Your task to perform on an android device: What is the news today? Image 0: 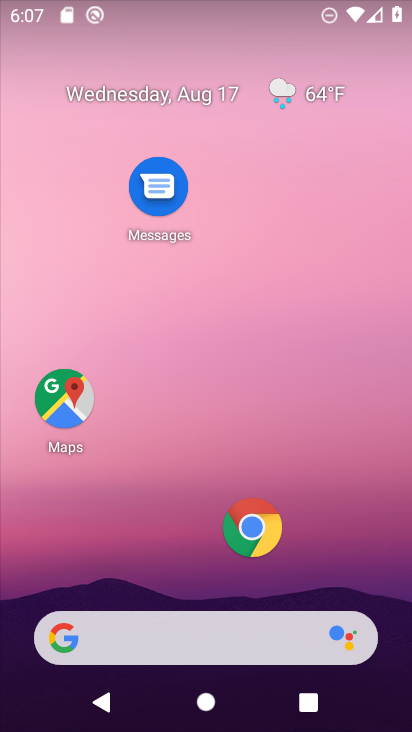
Step 0: drag from (194, 620) to (237, 215)
Your task to perform on an android device: What is the news today? Image 1: 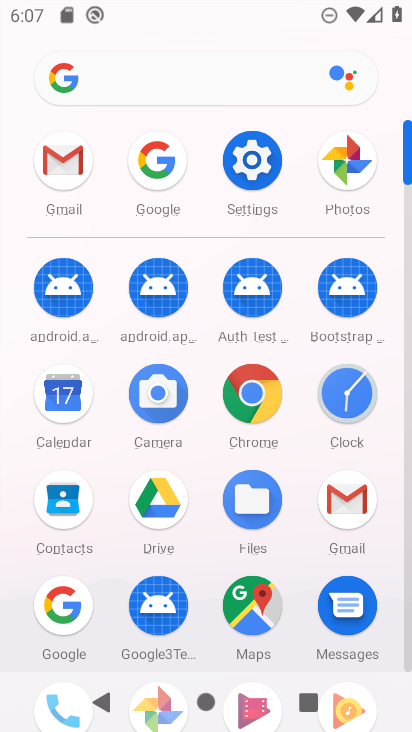
Step 1: click (78, 606)
Your task to perform on an android device: What is the news today? Image 2: 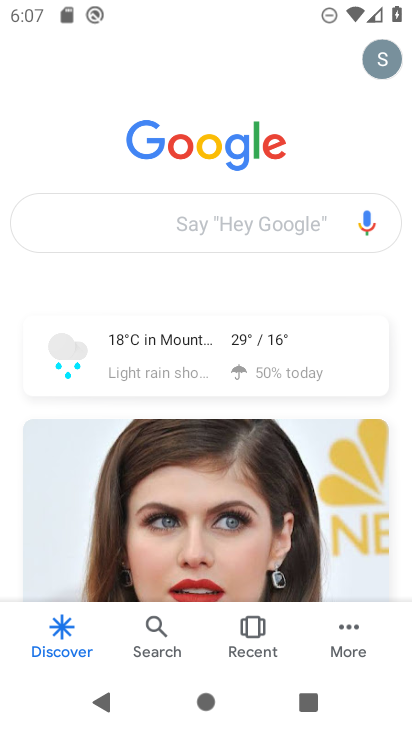
Step 2: click (130, 212)
Your task to perform on an android device: What is the news today? Image 3: 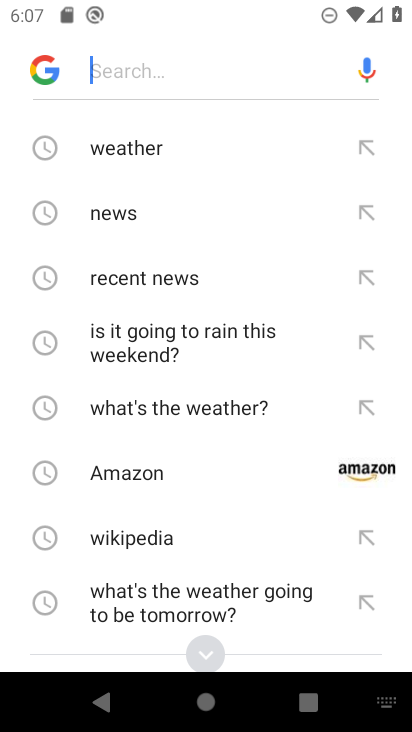
Step 3: click (109, 211)
Your task to perform on an android device: What is the news today? Image 4: 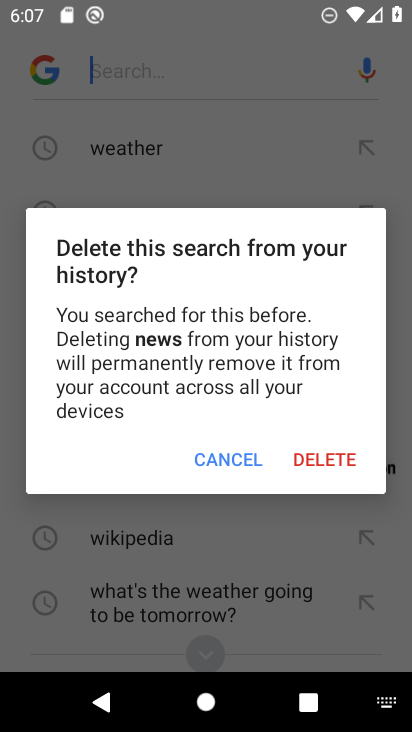
Step 4: click (250, 450)
Your task to perform on an android device: What is the news today? Image 5: 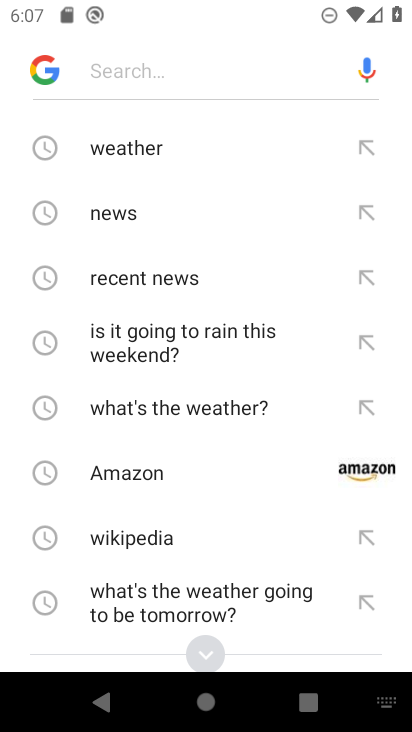
Step 5: click (115, 213)
Your task to perform on an android device: What is the news today? Image 6: 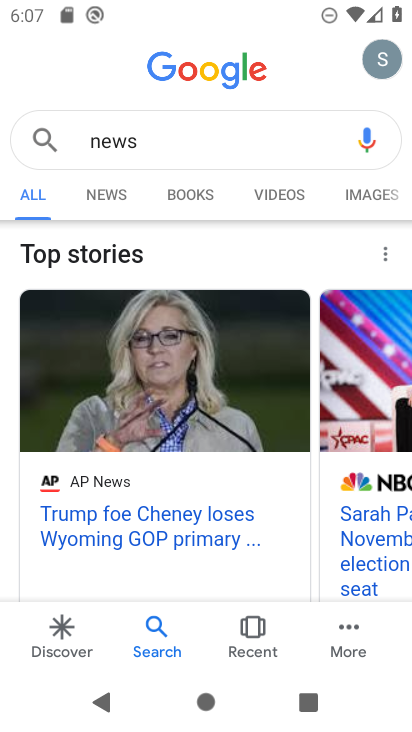
Step 6: task complete